Your task to perform on an android device: Go to CNN.com Image 0: 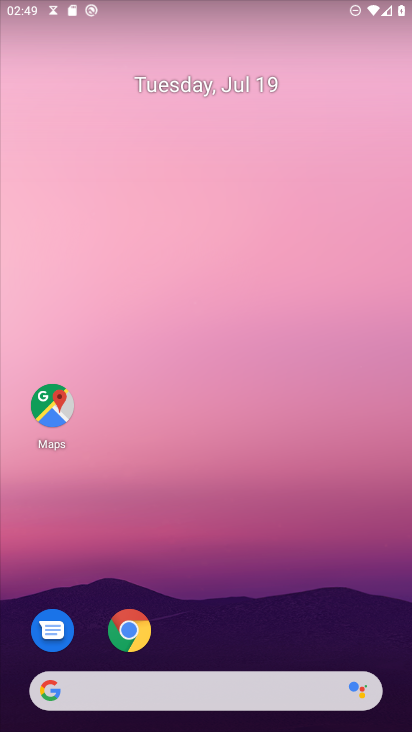
Step 0: press home button
Your task to perform on an android device: Go to CNN.com Image 1: 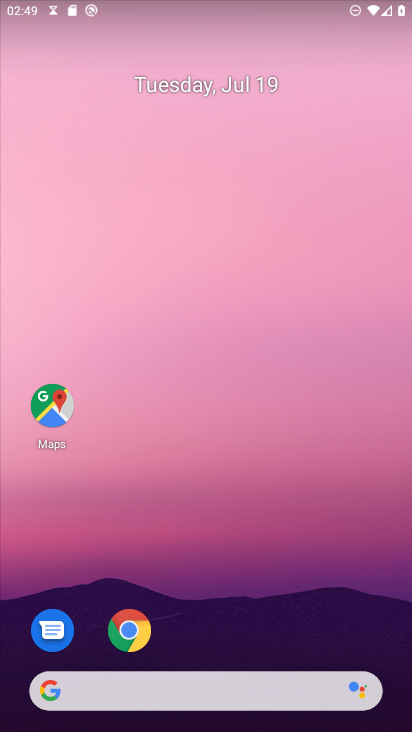
Step 1: click (136, 632)
Your task to perform on an android device: Go to CNN.com Image 2: 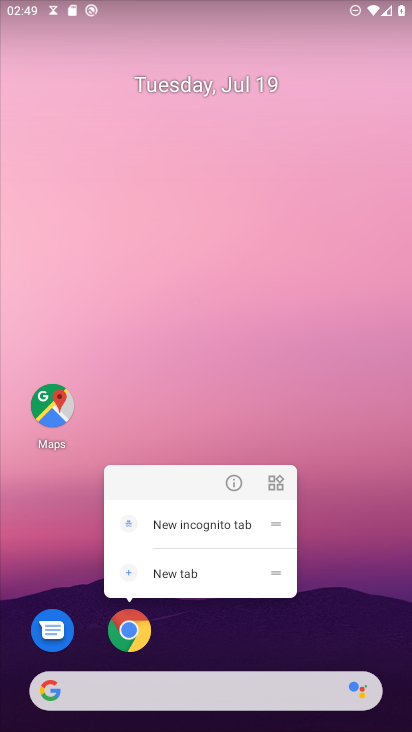
Step 2: click (125, 634)
Your task to perform on an android device: Go to CNN.com Image 3: 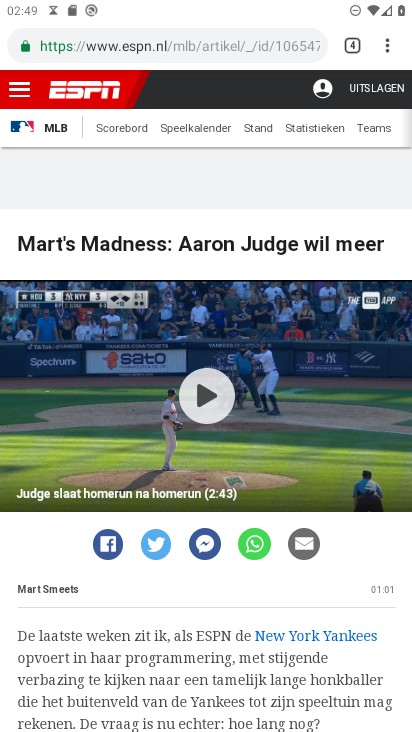
Step 3: drag from (386, 50) to (258, 87)
Your task to perform on an android device: Go to CNN.com Image 4: 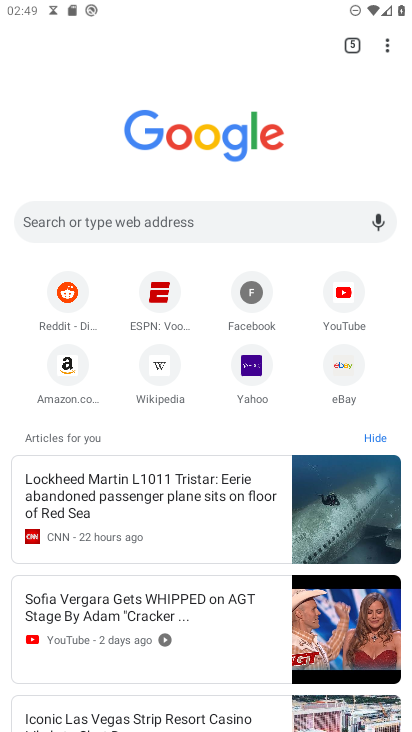
Step 4: click (126, 225)
Your task to perform on an android device: Go to CNN.com Image 5: 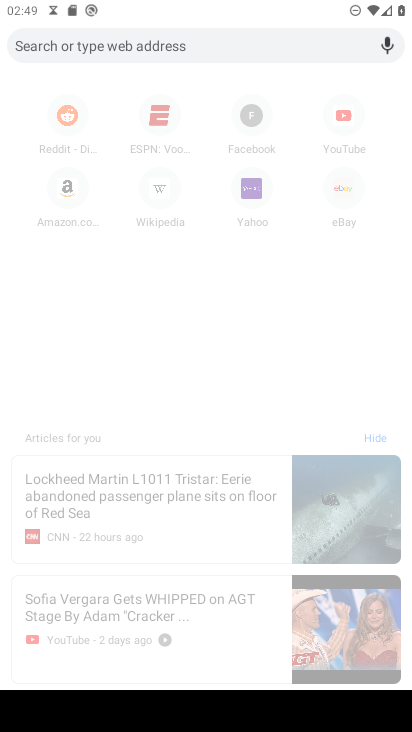
Step 5: type "cnn.com"
Your task to perform on an android device: Go to CNN.com Image 6: 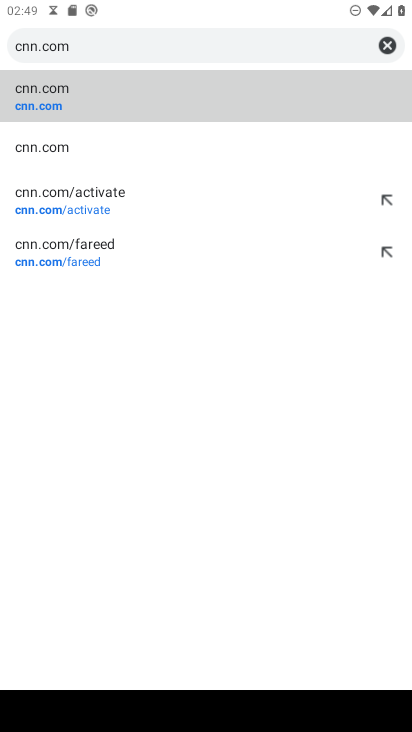
Step 6: click (59, 97)
Your task to perform on an android device: Go to CNN.com Image 7: 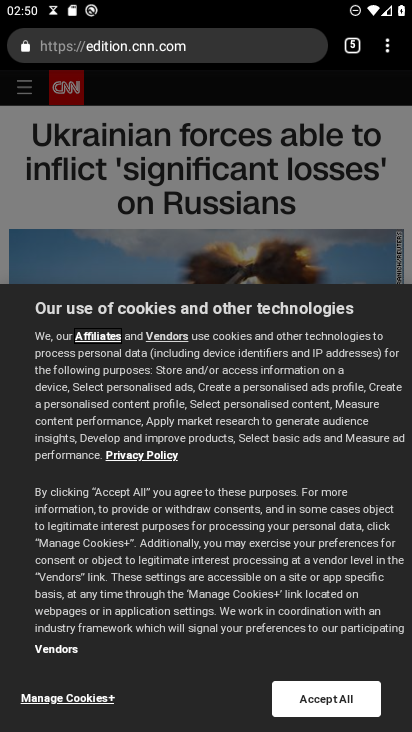
Step 7: click (344, 705)
Your task to perform on an android device: Go to CNN.com Image 8: 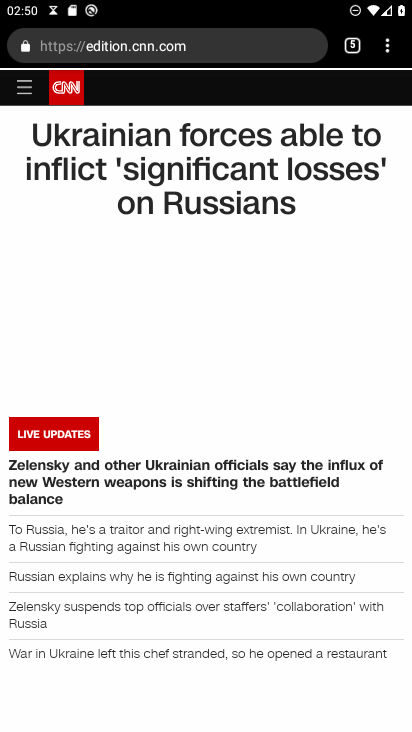
Step 8: task complete